Your task to perform on an android device: Is it going to rain today? Image 0: 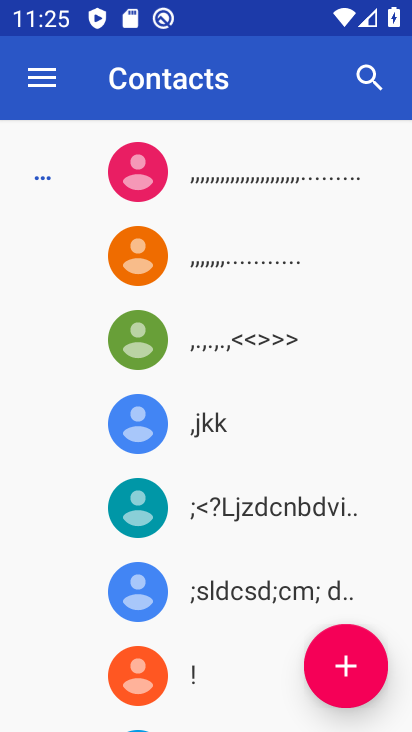
Step 0: press home button
Your task to perform on an android device: Is it going to rain today? Image 1: 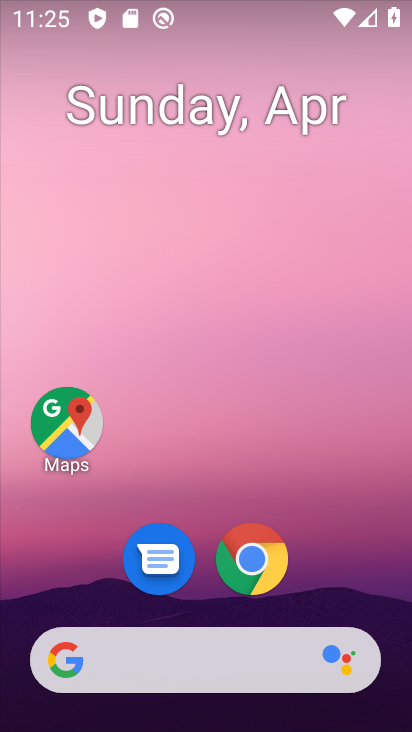
Step 1: click (124, 645)
Your task to perform on an android device: Is it going to rain today? Image 2: 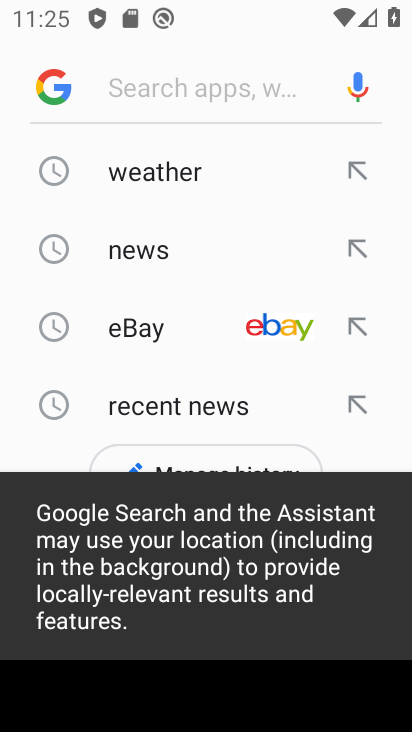
Step 2: click (215, 163)
Your task to perform on an android device: Is it going to rain today? Image 3: 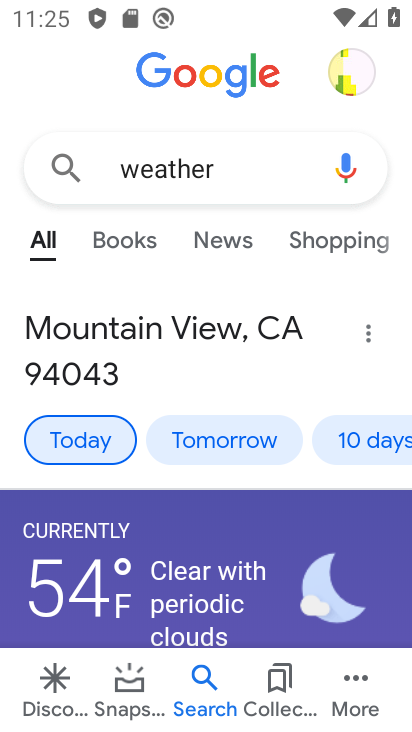
Step 3: task complete